Your task to perform on an android device: Search for sushi restaurants on Maps Image 0: 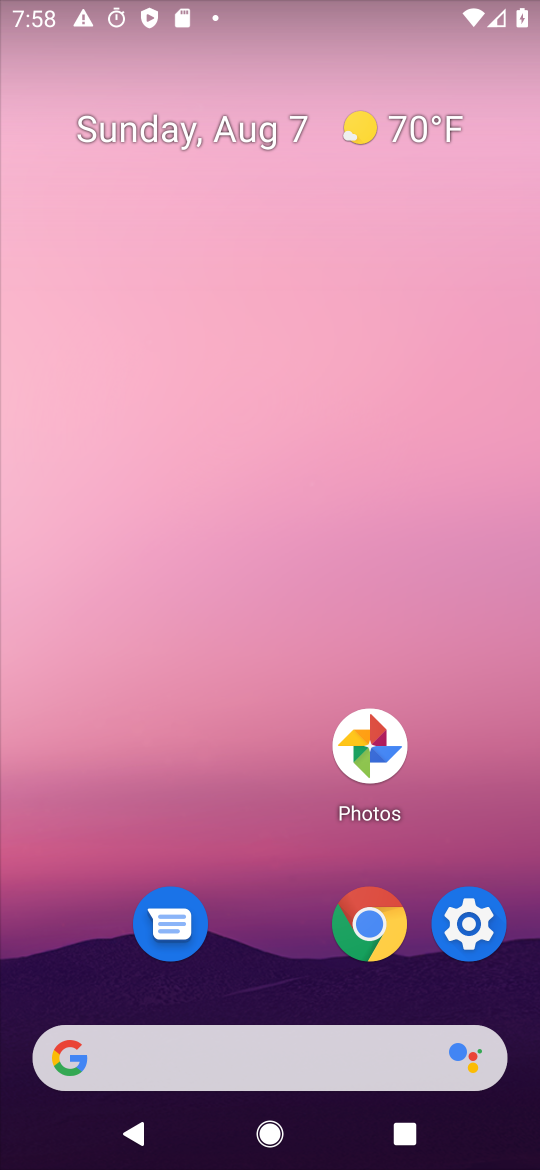
Step 0: drag from (279, 917) to (170, 188)
Your task to perform on an android device: Search for sushi restaurants on Maps Image 1: 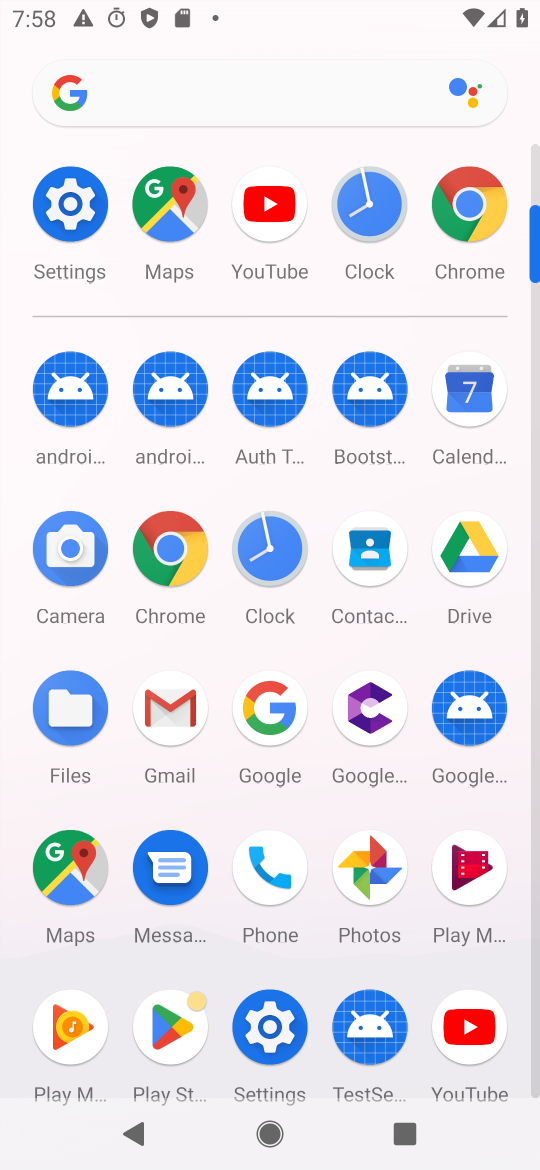
Step 1: click (172, 209)
Your task to perform on an android device: Search for sushi restaurants on Maps Image 2: 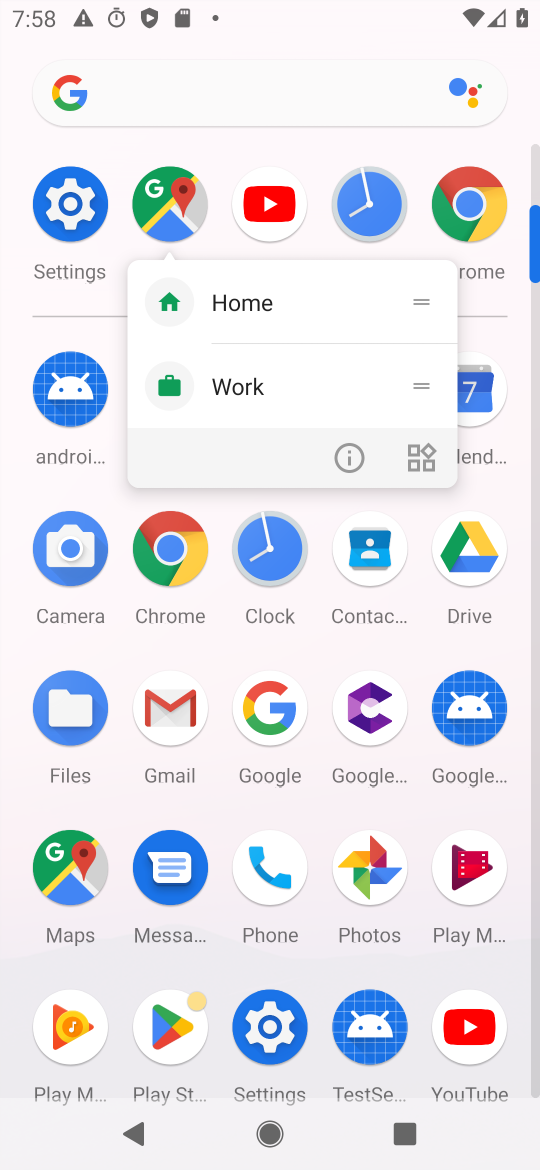
Step 2: click (136, 212)
Your task to perform on an android device: Search for sushi restaurants on Maps Image 3: 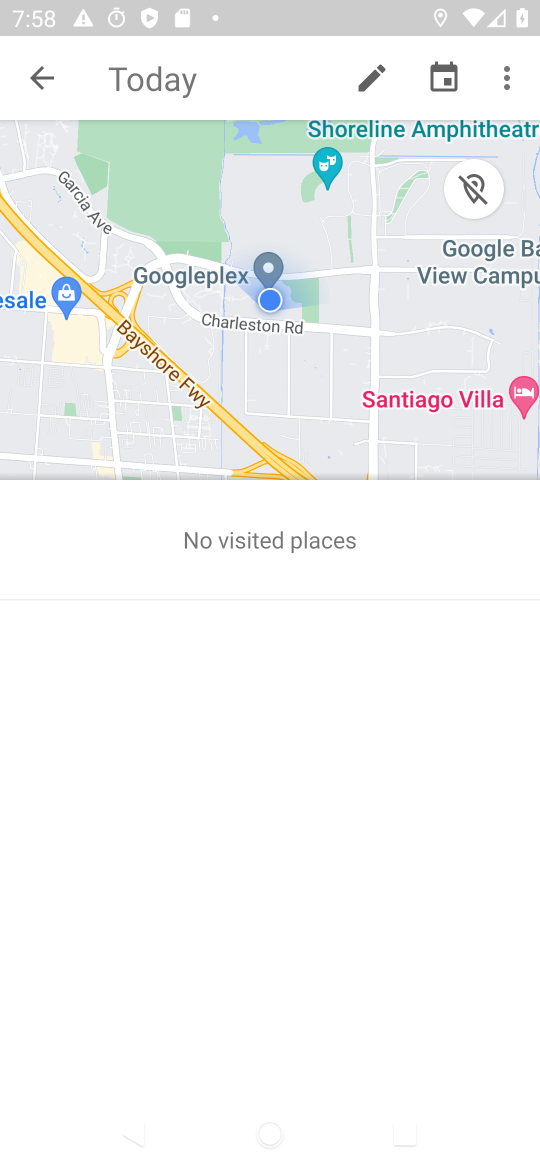
Step 3: click (46, 89)
Your task to perform on an android device: Search for sushi restaurants on Maps Image 4: 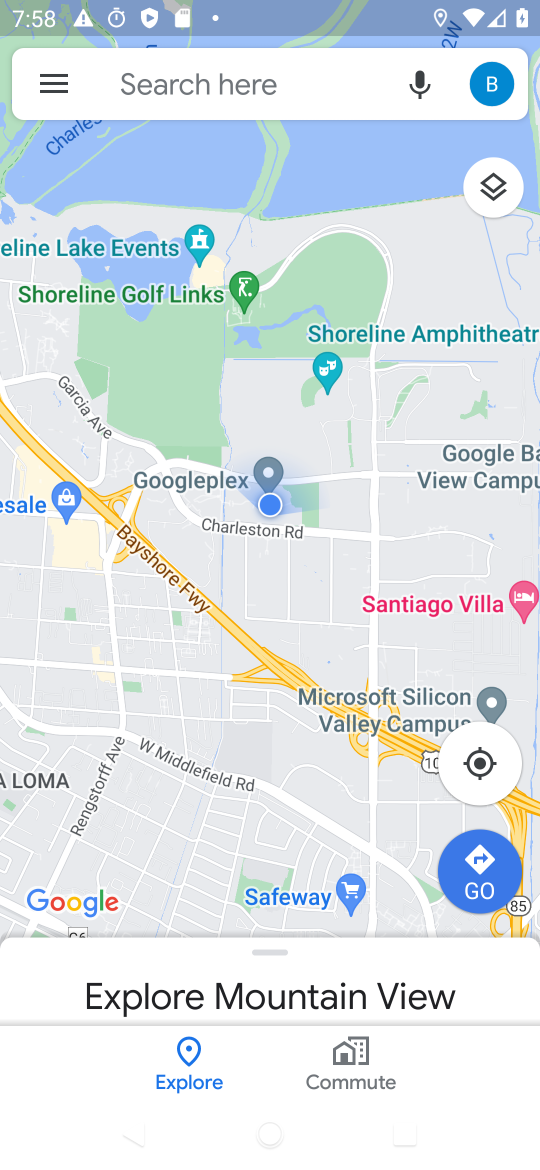
Step 4: click (153, 81)
Your task to perform on an android device: Search for sushi restaurants on Maps Image 5: 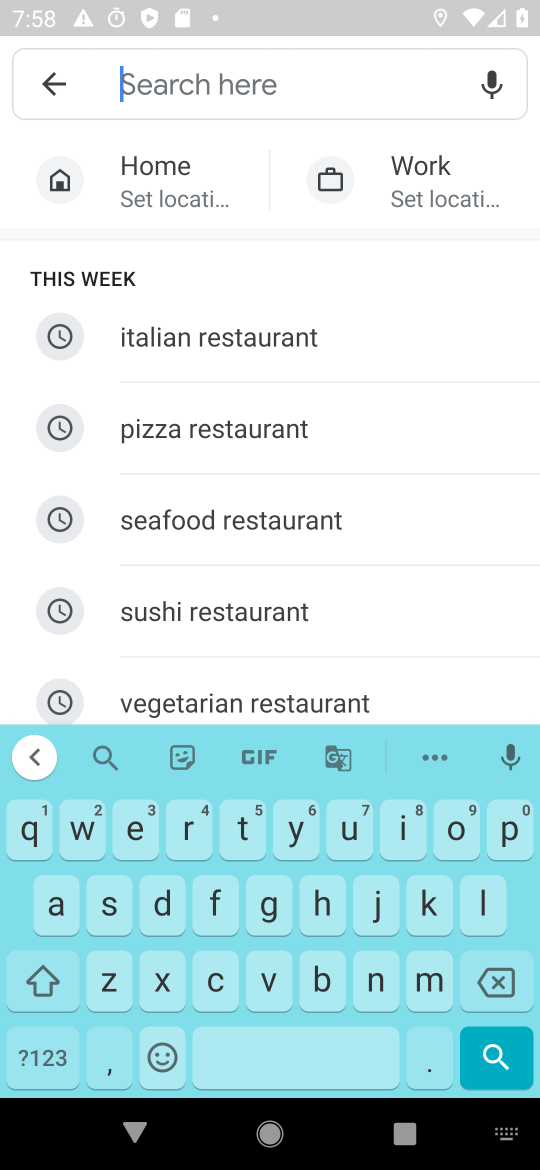
Step 5: click (182, 608)
Your task to perform on an android device: Search for sushi restaurants on Maps Image 6: 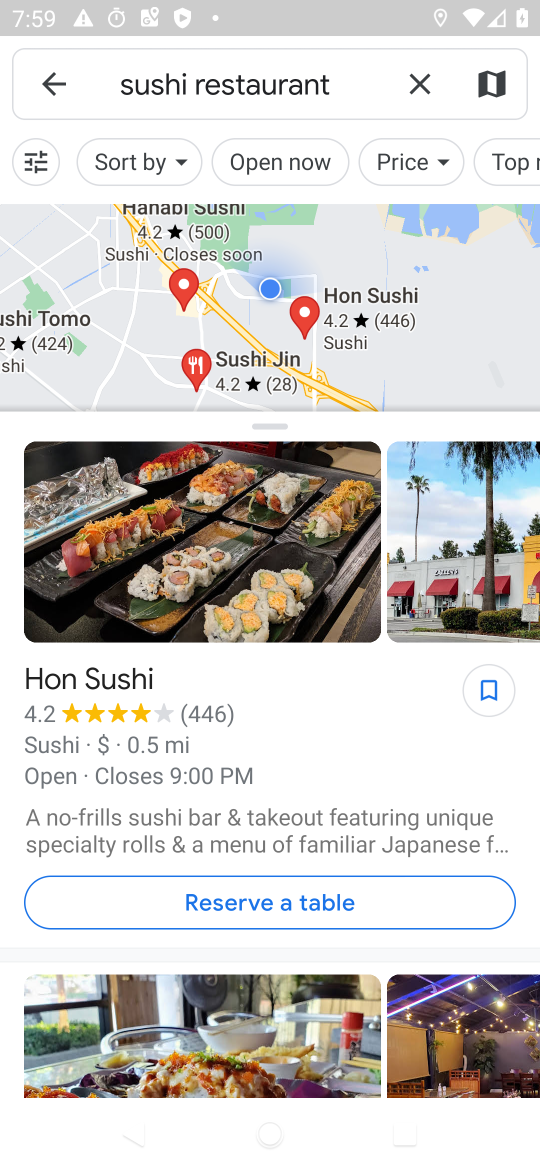
Step 6: task complete